Your task to perform on an android device: Go to wifi settings Image 0: 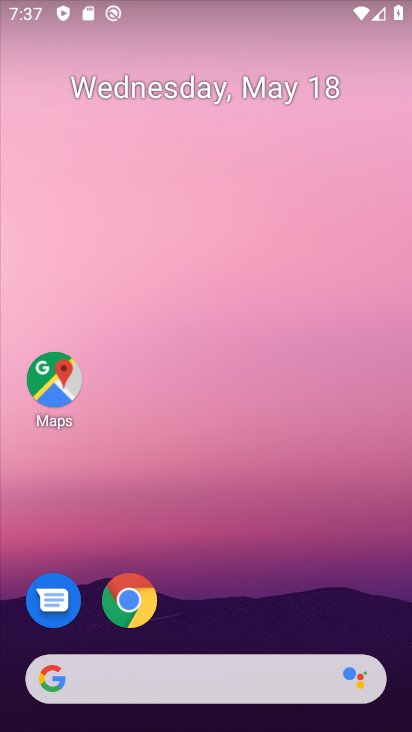
Step 0: drag from (194, 702) to (310, 110)
Your task to perform on an android device: Go to wifi settings Image 1: 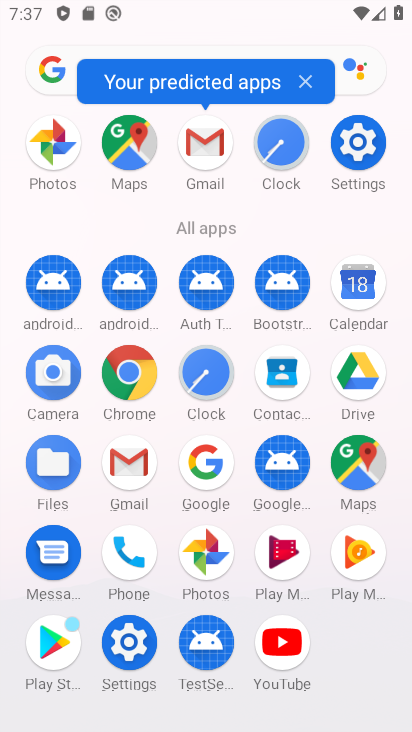
Step 1: click (356, 152)
Your task to perform on an android device: Go to wifi settings Image 2: 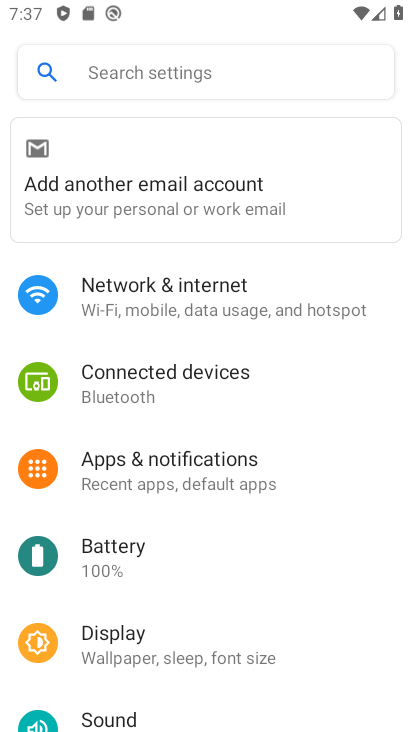
Step 2: click (173, 309)
Your task to perform on an android device: Go to wifi settings Image 3: 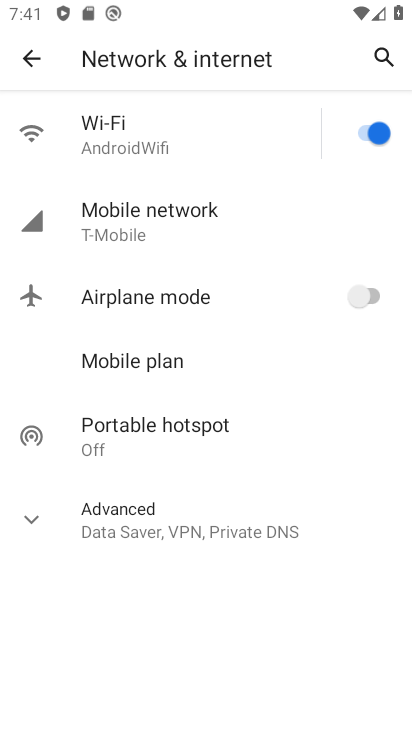
Step 3: click (163, 123)
Your task to perform on an android device: Go to wifi settings Image 4: 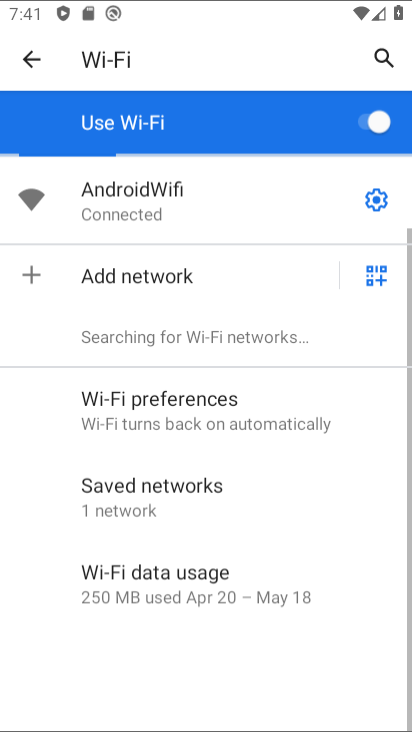
Step 4: task complete